Your task to perform on an android device: Search for the best vacuum on Walmart Image 0: 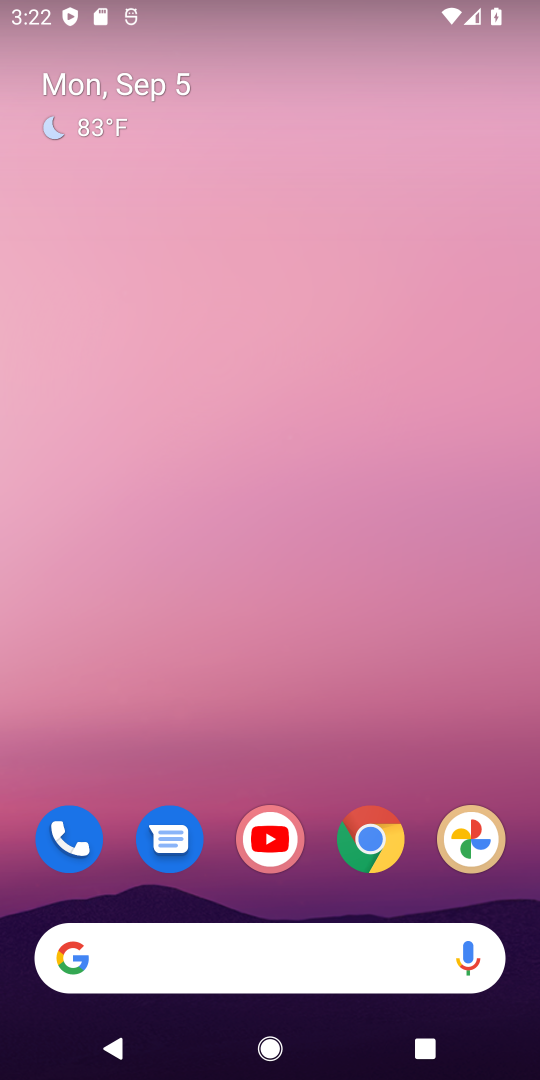
Step 0: click (361, 829)
Your task to perform on an android device: Search for the best vacuum on Walmart Image 1: 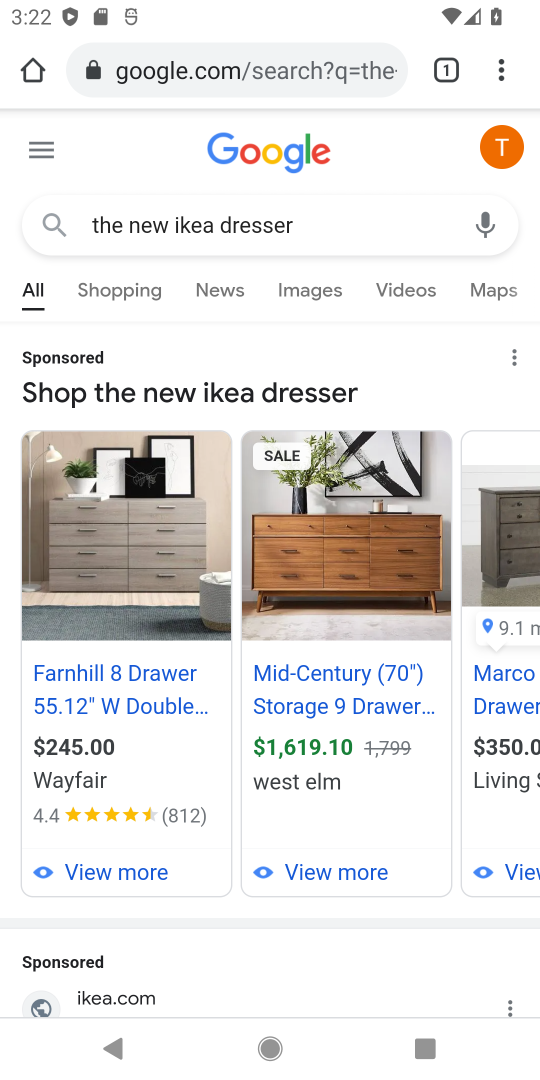
Step 1: click (193, 68)
Your task to perform on an android device: Search for the best vacuum on Walmart Image 2: 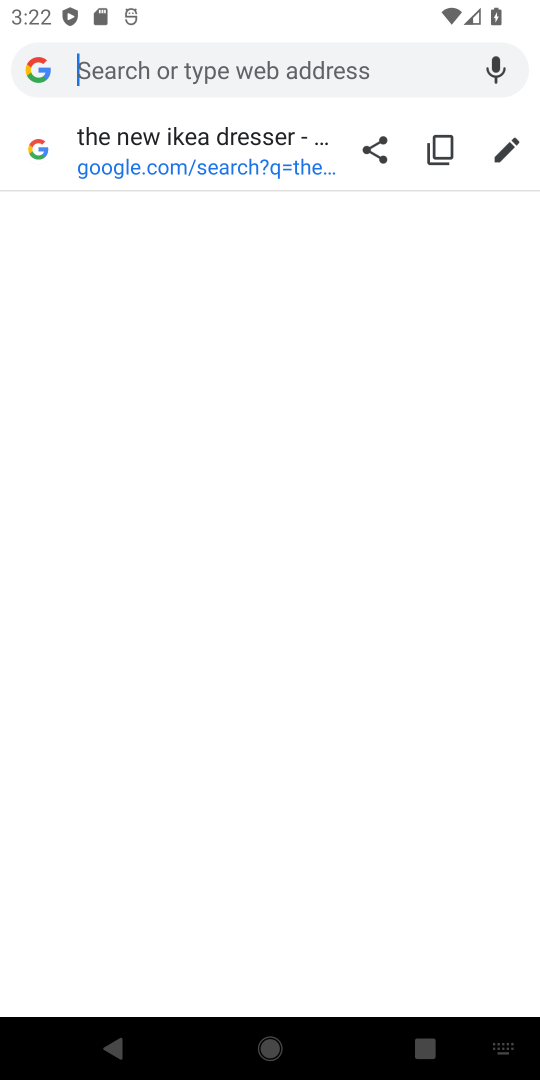
Step 2: type "Walmart"
Your task to perform on an android device: Search for the best vacuum on Walmart Image 3: 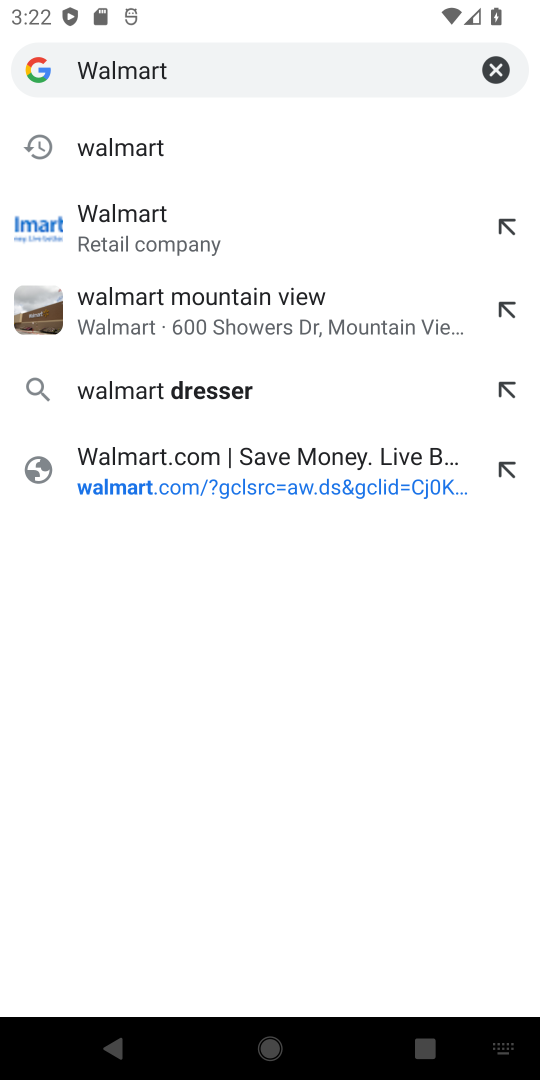
Step 3: click (119, 166)
Your task to perform on an android device: Search for the best vacuum on Walmart Image 4: 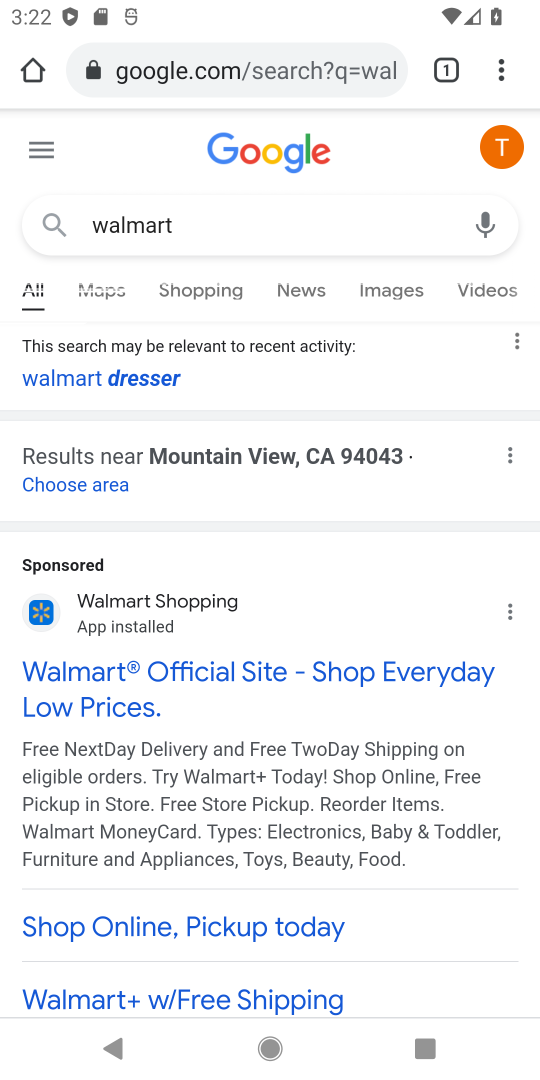
Step 4: click (148, 701)
Your task to perform on an android device: Search for the best vacuum on Walmart Image 5: 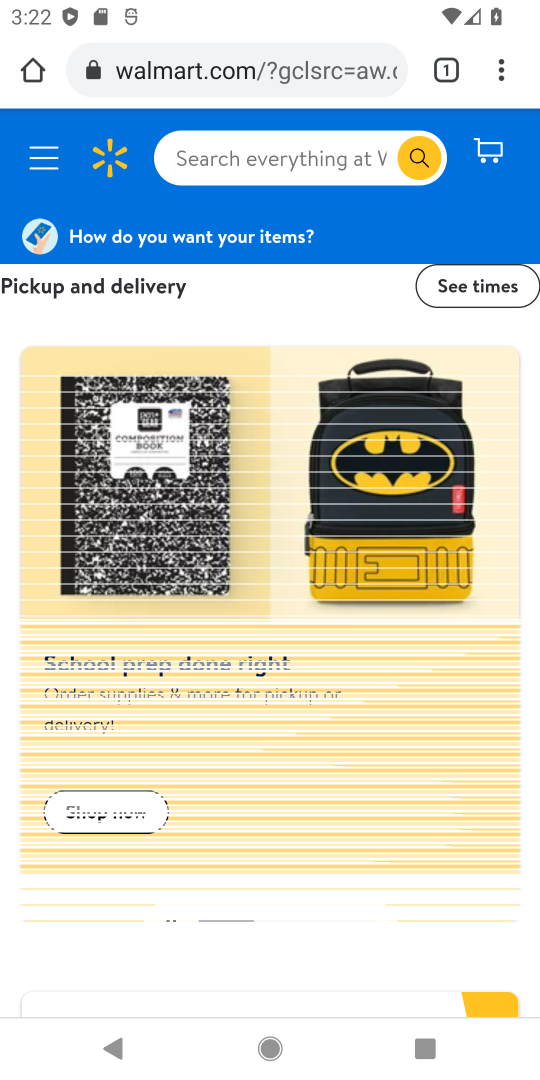
Step 5: click (253, 163)
Your task to perform on an android device: Search for the best vacuum on Walmart Image 6: 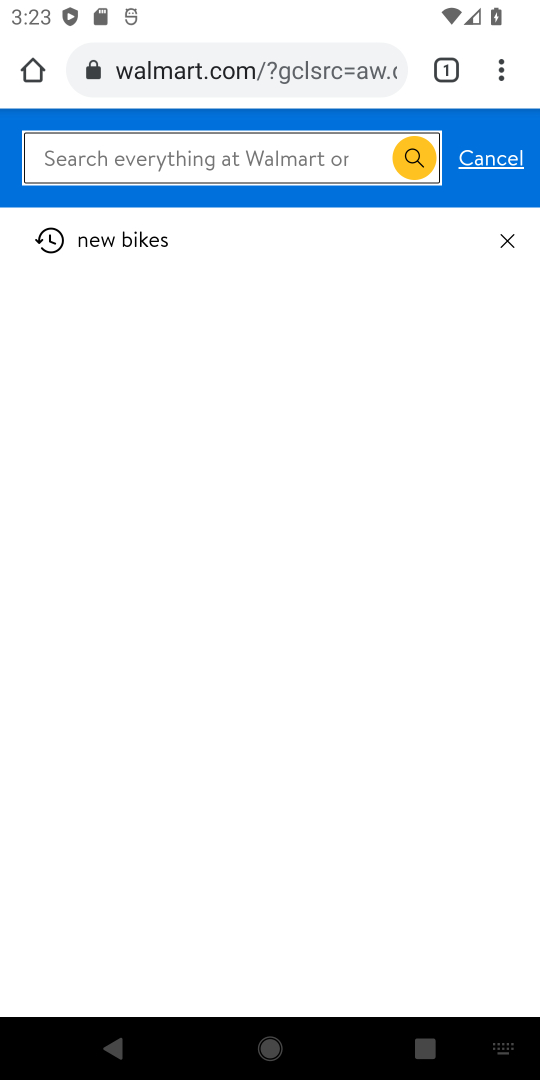
Step 6: type "the best vacuum"
Your task to perform on an android device: Search for the best vacuum on Walmart Image 7: 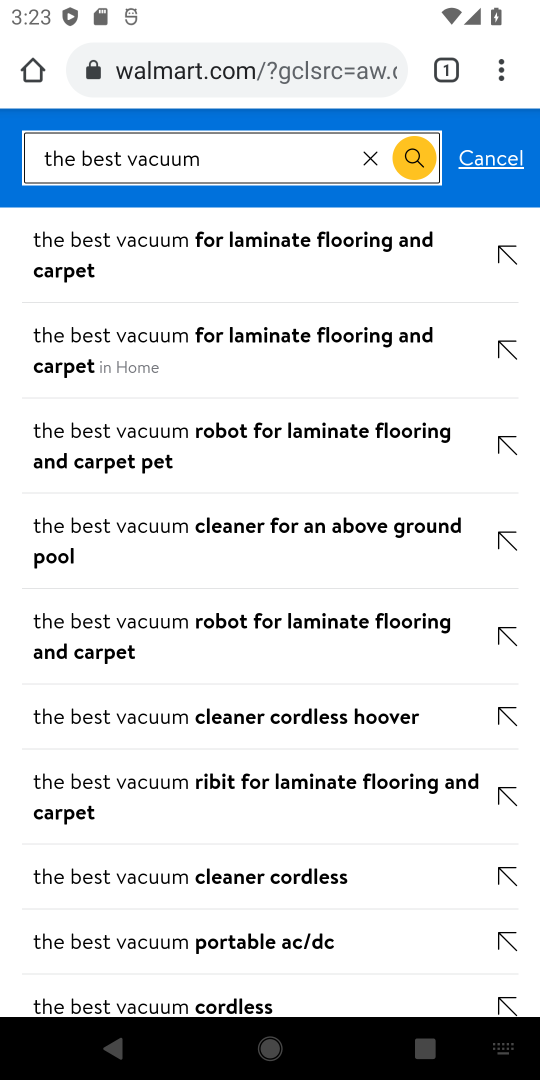
Step 7: click (414, 161)
Your task to perform on an android device: Search for the best vacuum on Walmart Image 8: 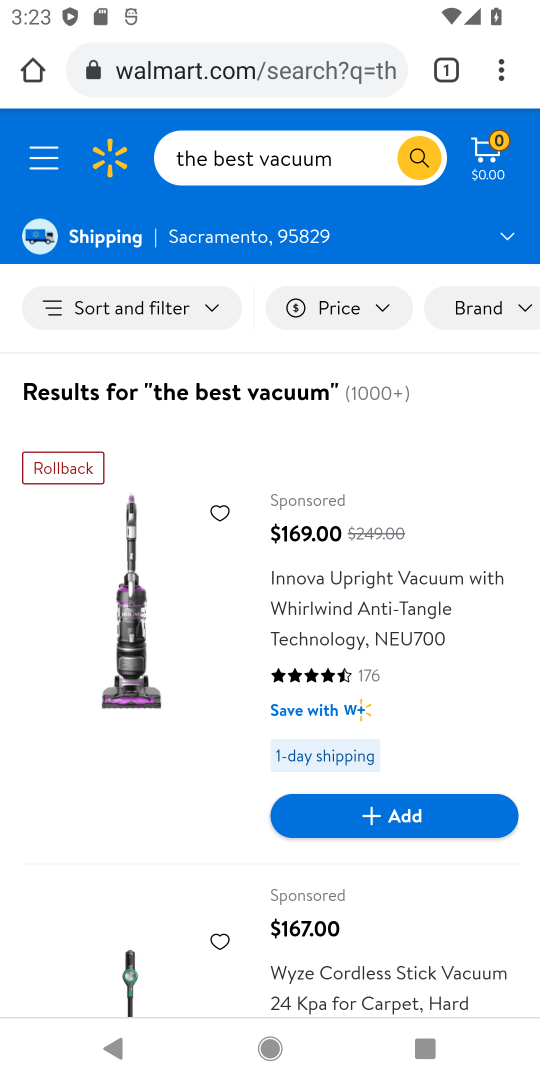
Step 8: task complete